Your task to perform on an android device: Show me popular games on the Play Store Image 0: 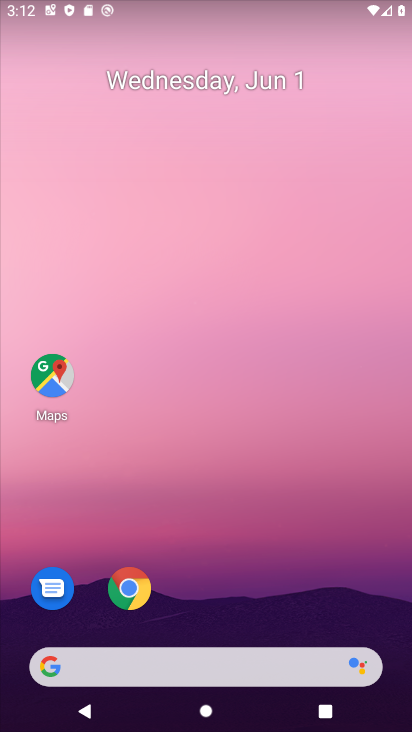
Step 0: drag from (342, 598) to (326, 64)
Your task to perform on an android device: Show me popular games on the Play Store Image 1: 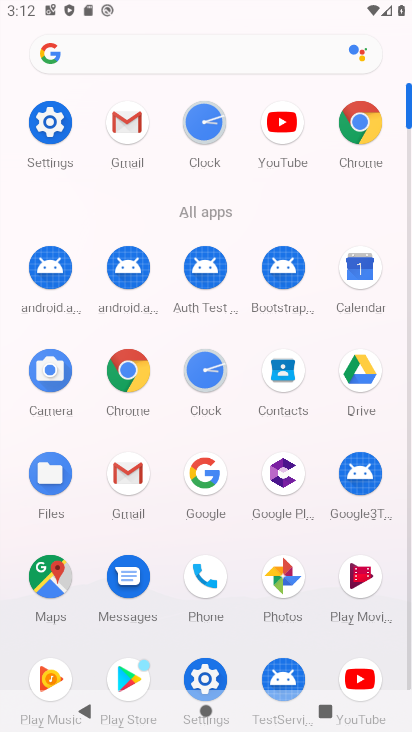
Step 1: click (127, 670)
Your task to perform on an android device: Show me popular games on the Play Store Image 2: 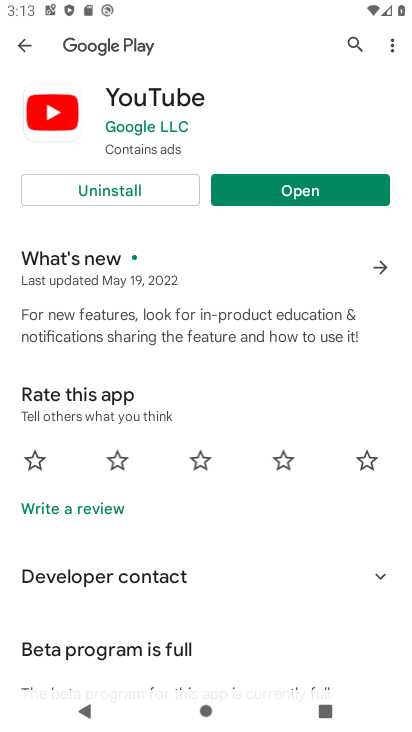
Step 2: click (28, 36)
Your task to perform on an android device: Show me popular games on the Play Store Image 3: 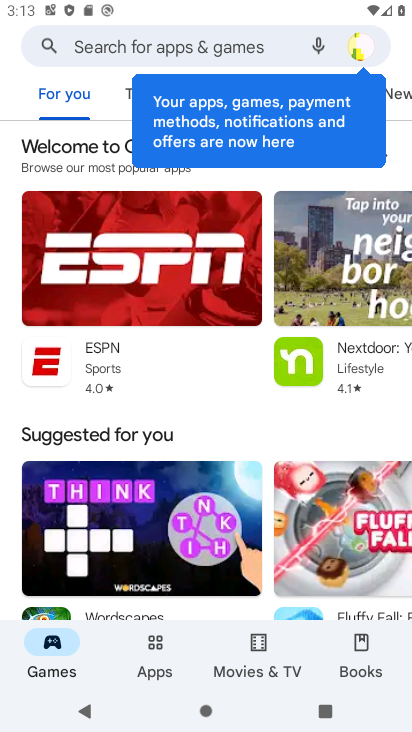
Step 3: drag from (198, 322) to (190, 287)
Your task to perform on an android device: Show me popular games on the Play Store Image 4: 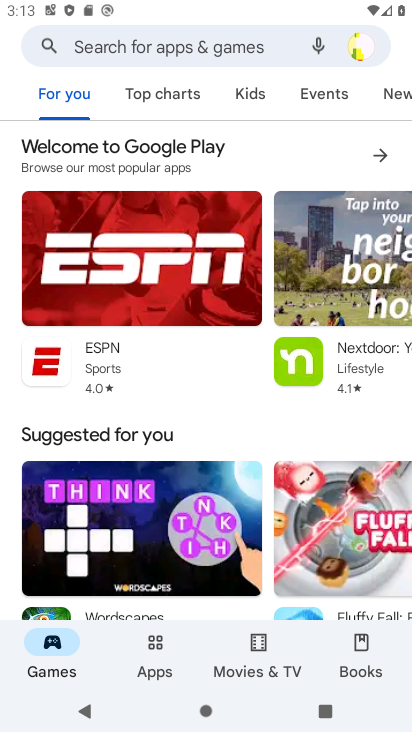
Step 4: click (191, 94)
Your task to perform on an android device: Show me popular games on the Play Store Image 5: 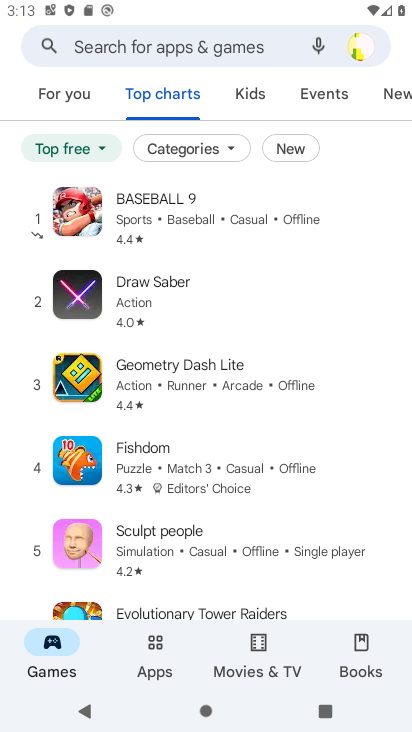
Step 5: task complete